Your task to perform on an android device: turn off data saver in the chrome app Image 0: 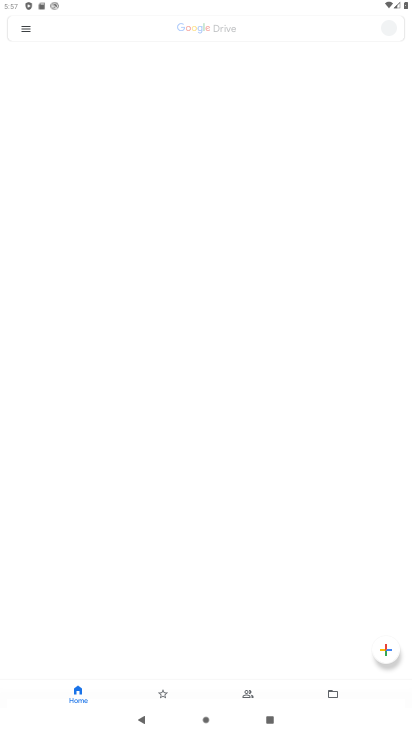
Step 0: press home button
Your task to perform on an android device: turn off data saver in the chrome app Image 1: 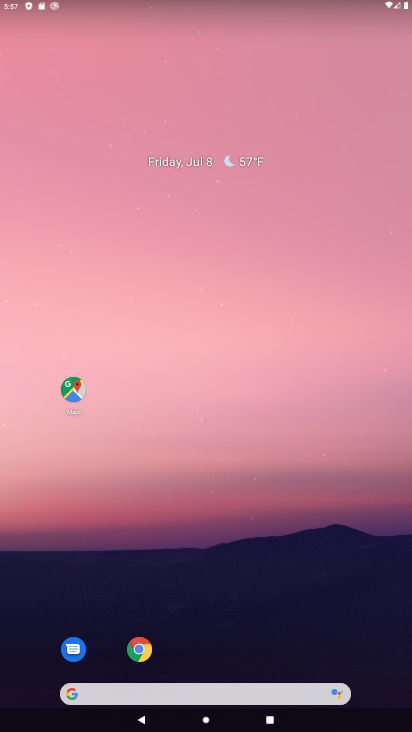
Step 1: drag from (216, 615) to (274, 92)
Your task to perform on an android device: turn off data saver in the chrome app Image 2: 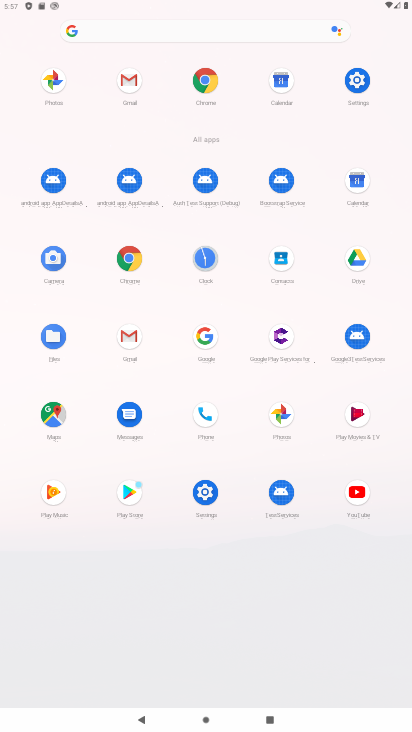
Step 2: click (131, 258)
Your task to perform on an android device: turn off data saver in the chrome app Image 3: 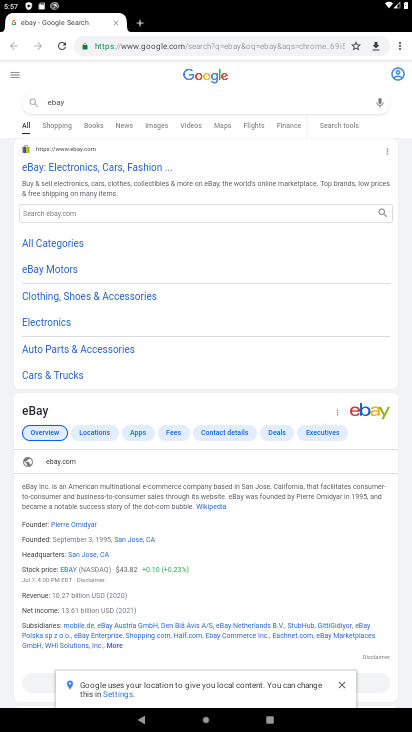
Step 3: drag from (402, 42) to (330, 281)
Your task to perform on an android device: turn off data saver in the chrome app Image 4: 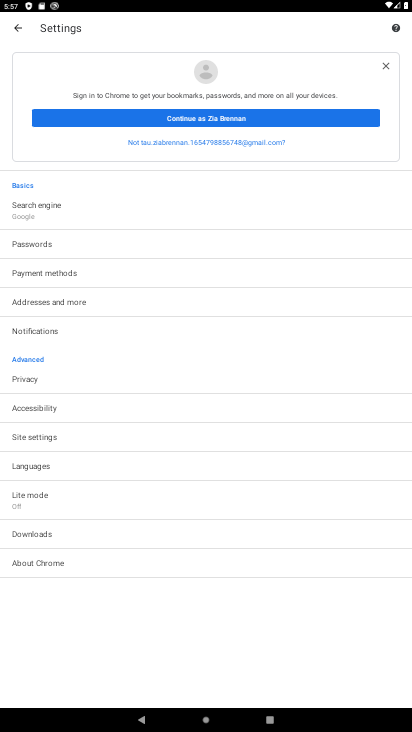
Step 4: click (35, 499)
Your task to perform on an android device: turn off data saver in the chrome app Image 5: 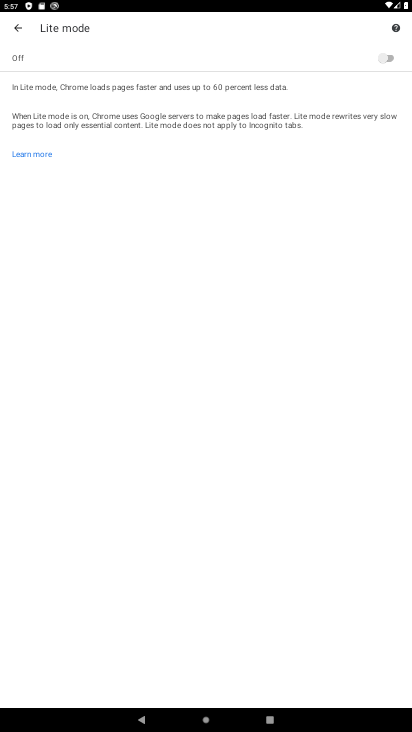
Step 5: task complete